Your task to perform on an android device: refresh tabs in the chrome app Image 0: 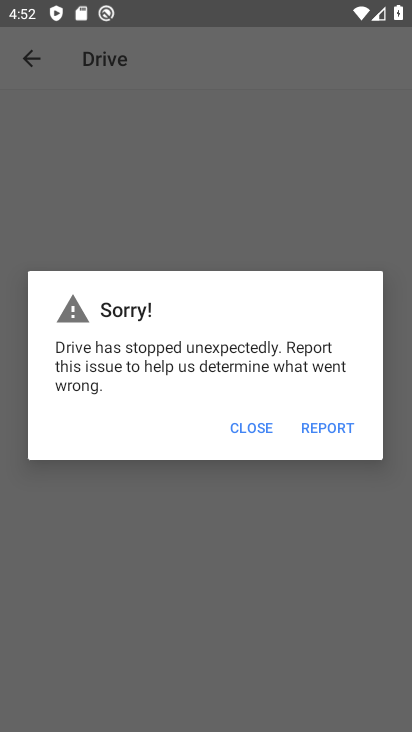
Step 0: press home button
Your task to perform on an android device: refresh tabs in the chrome app Image 1: 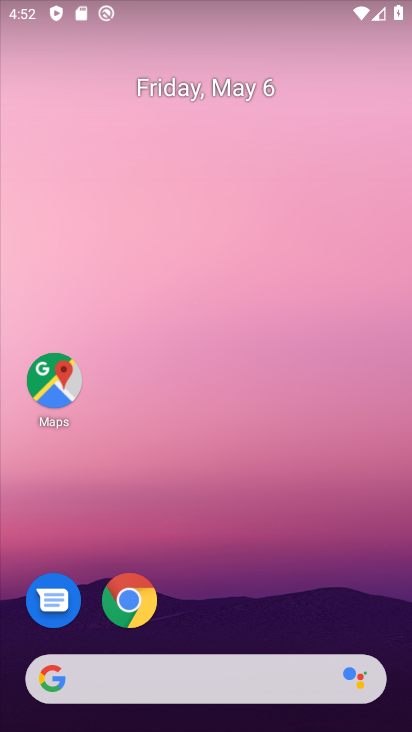
Step 1: click (140, 608)
Your task to perform on an android device: refresh tabs in the chrome app Image 2: 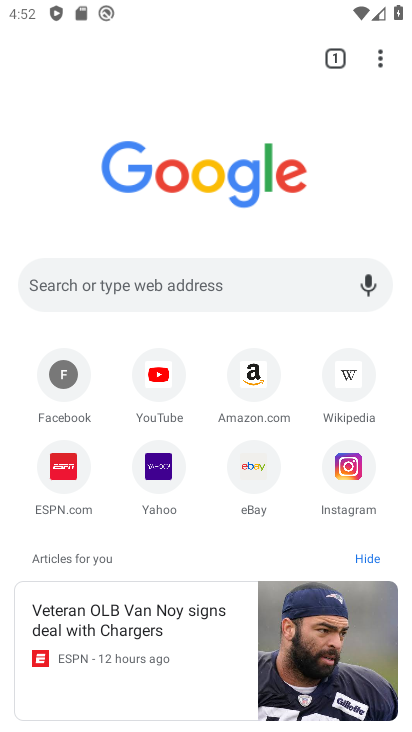
Step 2: click (379, 59)
Your task to perform on an android device: refresh tabs in the chrome app Image 3: 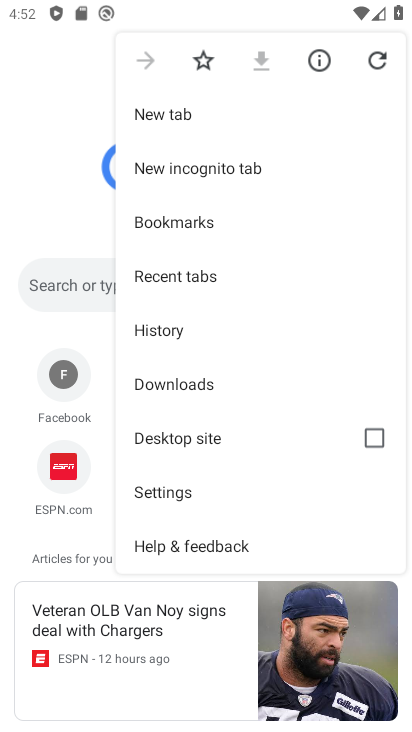
Step 3: click (381, 61)
Your task to perform on an android device: refresh tabs in the chrome app Image 4: 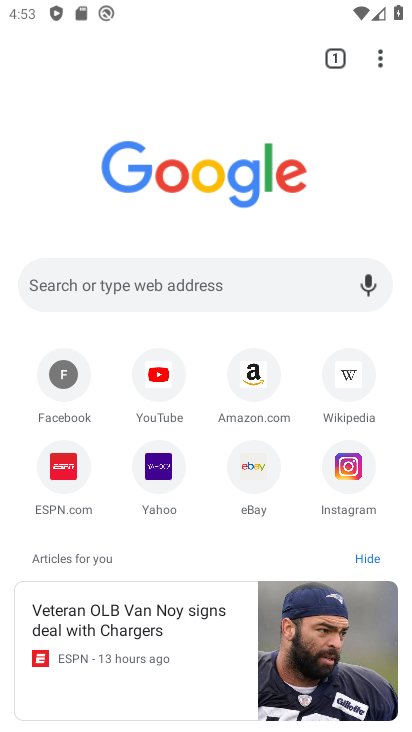
Step 4: task complete